Your task to perform on an android device: What's the weather? Image 0: 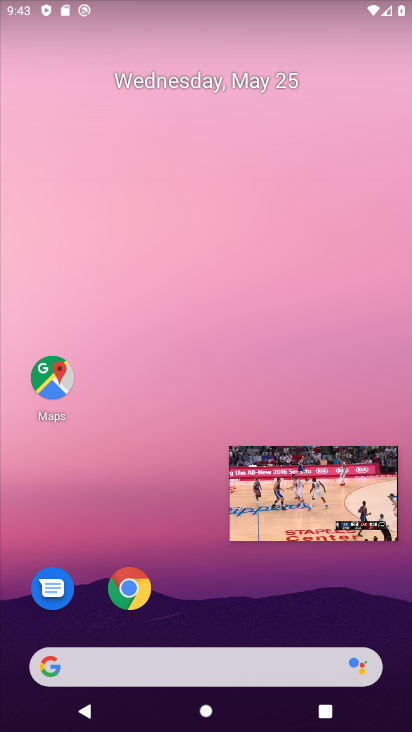
Step 0: click (129, 660)
Your task to perform on an android device: What's the weather? Image 1: 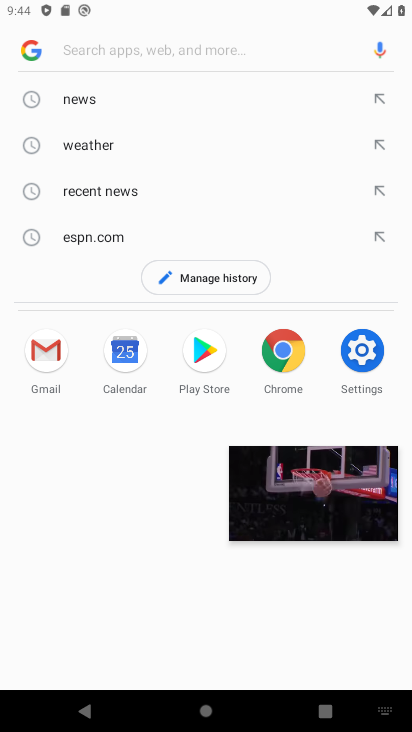
Step 1: type "what's the weather"
Your task to perform on an android device: What's the weather? Image 2: 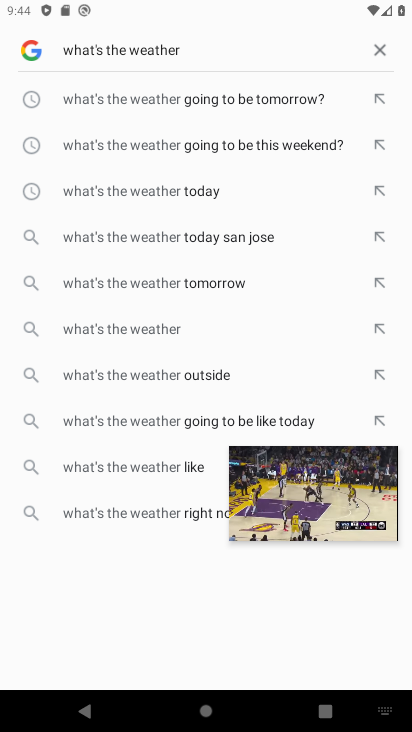
Step 2: click (150, 328)
Your task to perform on an android device: What's the weather? Image 3: 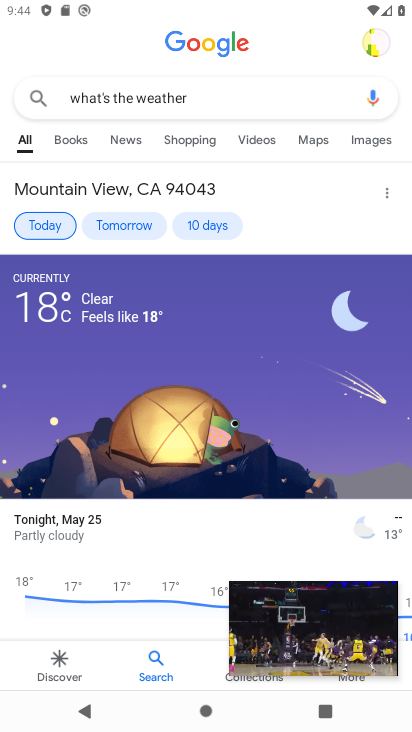
Step 3: task complete